Your task to perform on an android device: turn off smart reply in the gmail app Image 0: 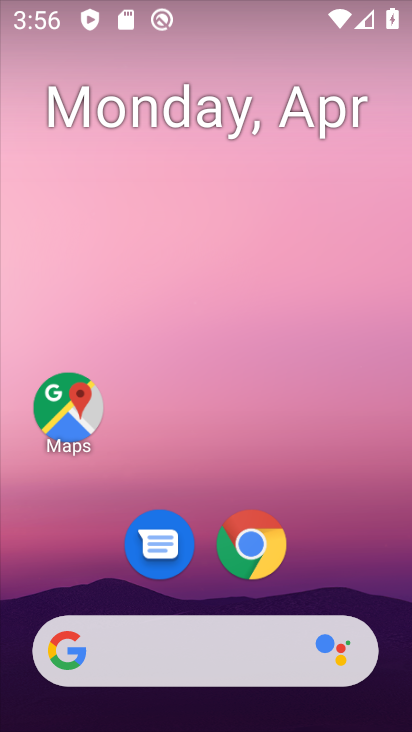
Step 0: drag from (73, 555) to (191, 46)
Your task to perform on an android device: turn off smart reply in the gmail app Image 1: 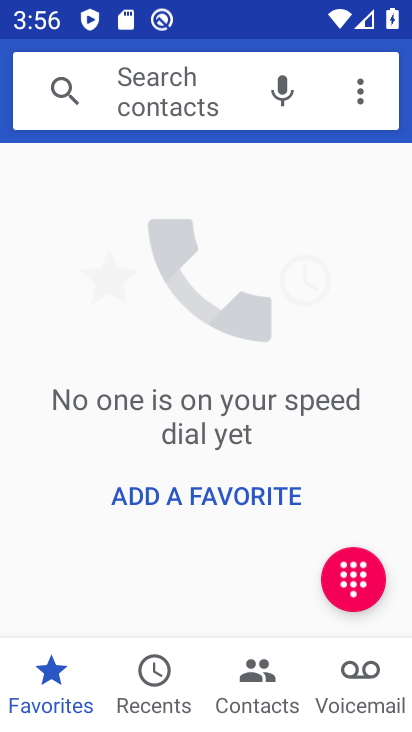
Step 1: press back button
Your task to perform on an android device: turn off smart reply in the gmail app Image 2: 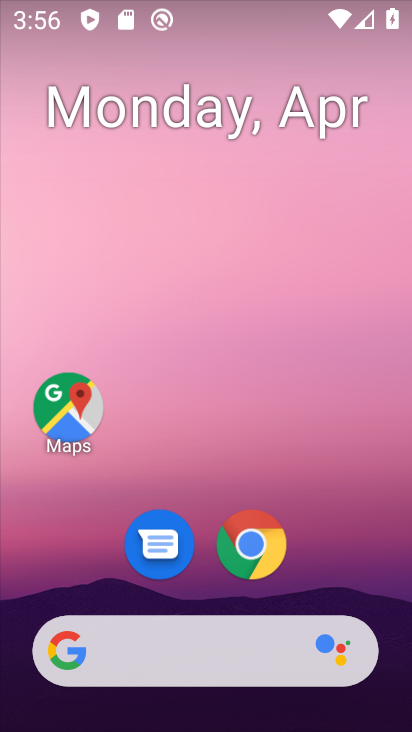
Step 2: drag from (192, 536) to (305, 22)
Your task to perform on an android device: turn off smart reply in the gmail app Image 3: 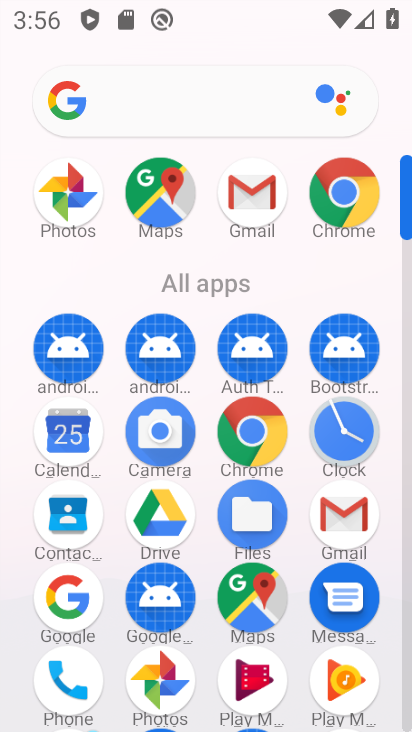
Step 3: click (347, 509)
Your task to perform on an android device: turn off smart reply in the gmail app Image 4: 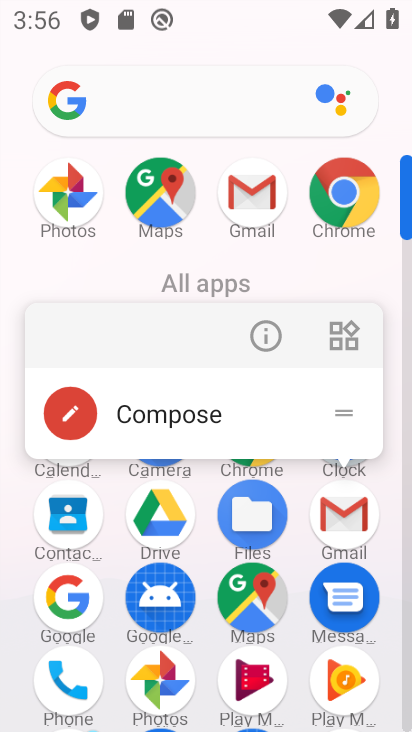
Step 4: click (348, 508)
Your task to perform on an android device: turn off smart reply in the gmail app Image 5: 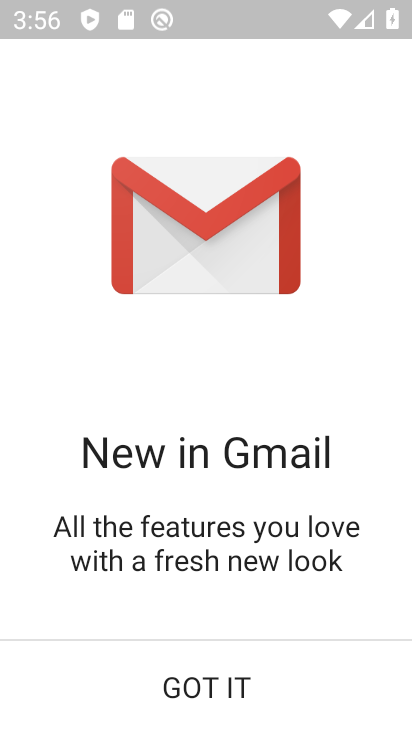
Step 5: click (244, 672)
Your task to perform on an android device: turn off smart reply in the gmail app Image 6: 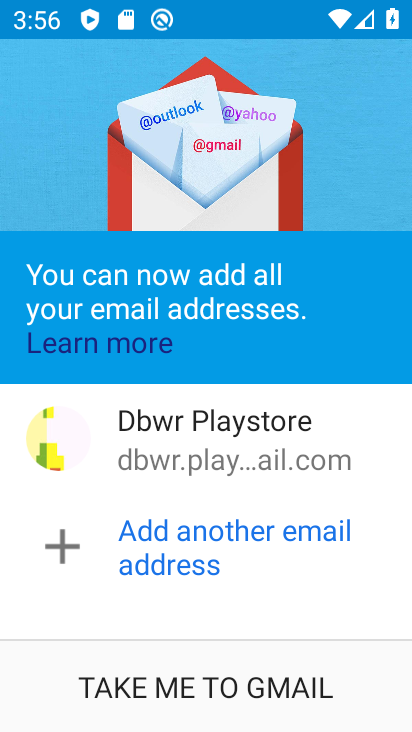
Step 6: click (253, 681)
Your task to perform on an android device: turn off smart reply in the gmail app Image 7: 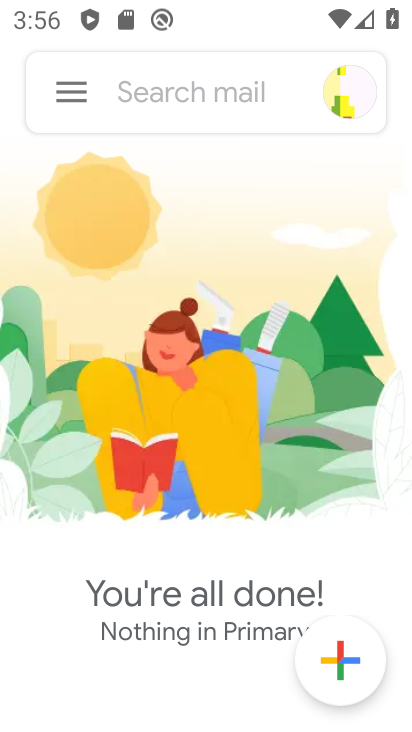
Step 7: click (66, 97)
Your task to perform on an android device: turn off smart reply in the gmail app Image 8: 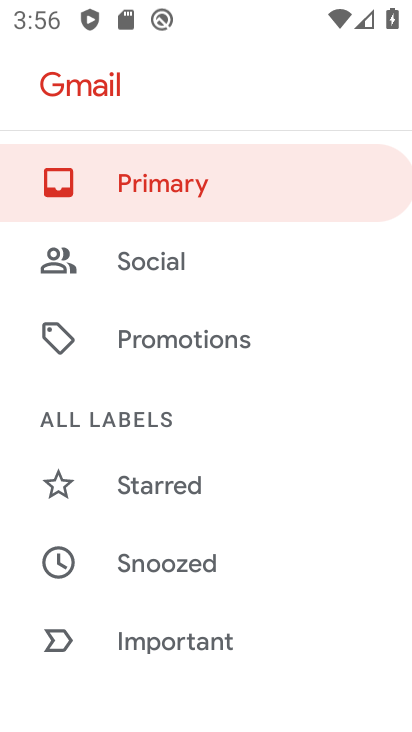
Step 8: drag from (221, 494) to (333, 162)
Your task to perform on an android device: turn off smart reply in the gmail app Image 9: 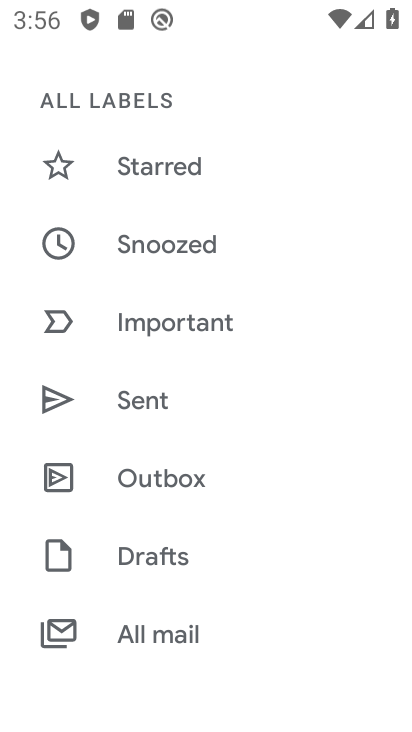
Step 9: drag from (229, 595) to (331, 120)
Your task to perform on an android device: turn off smart reply in the gmail app Image 10: 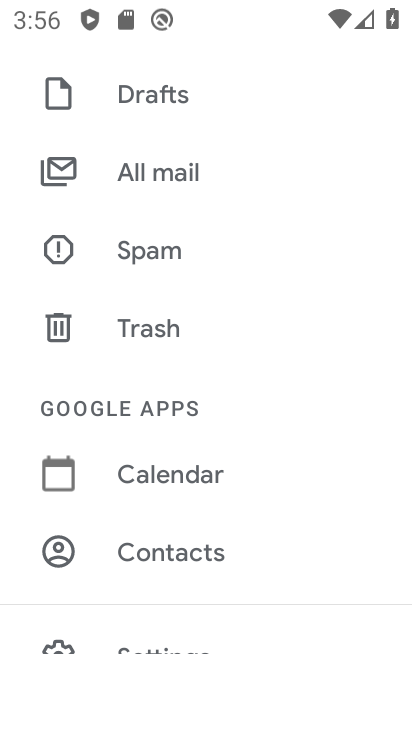
Step 10: drag from (276, 541) to (395, 118)
Your task to perform on an android device: turn off smart reply in the gmail app Image 11: 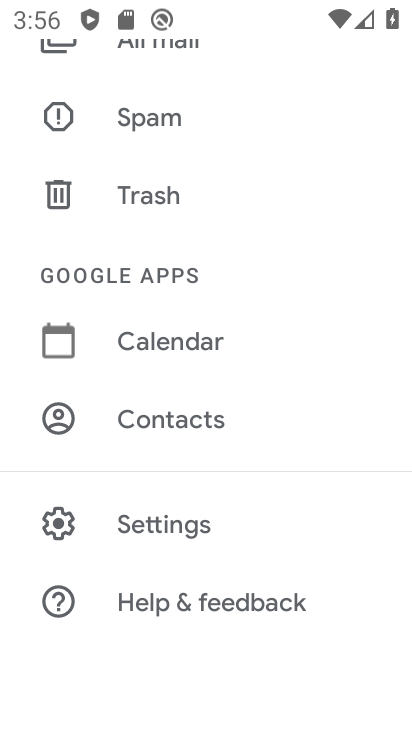
Step 11: click (230, 529)
Your task to perform on an android device: turn off smart reply in the gmail app Image 12: 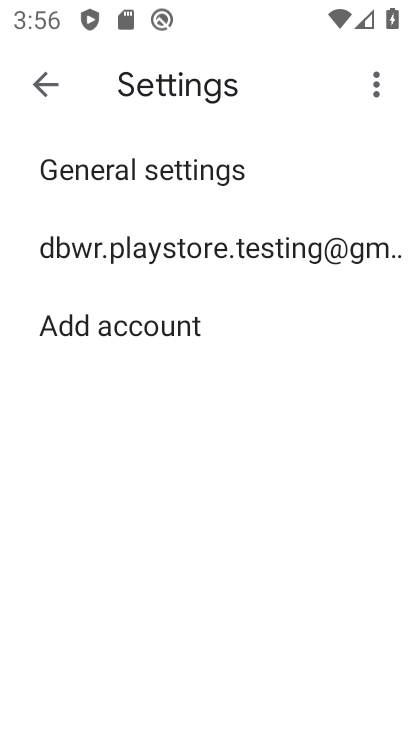
Step 12: click (225, 263)
Your task to perform on an android device: turn off smart reply in the gmail app Image 13: 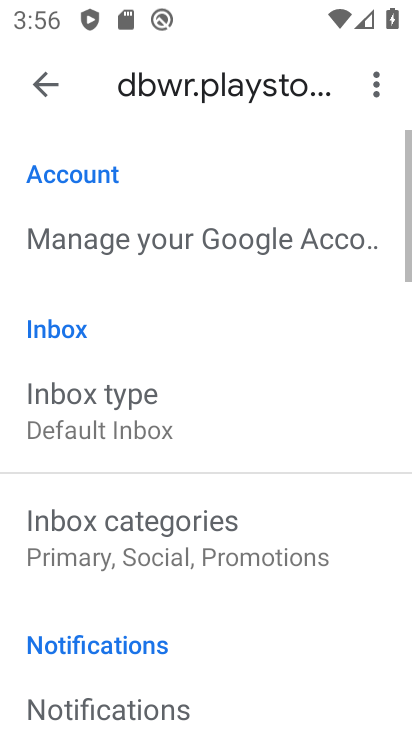
Step 13: drag from (179, 614) to (357, 106)
Your task to perform on an android device: turn off smart reply in the gmail app Image 14: 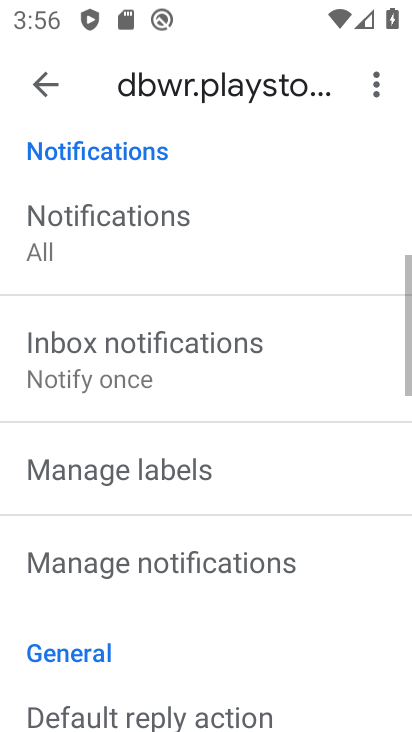
Step 14: drag from (209, 553) to (360, 137)
Your task to perform on an android device: turn off smart reply in the gmail app Image 15: 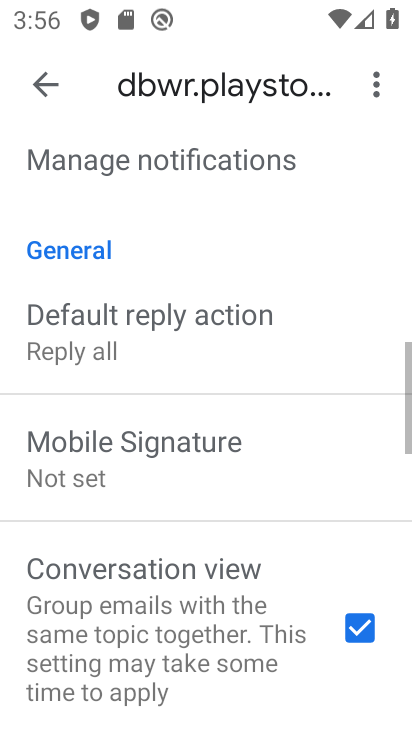
Step 15: drag from (219, 563) to (336, 121)
Your task to perform on an android device: turn off smart reply in the gmail app Image 16: 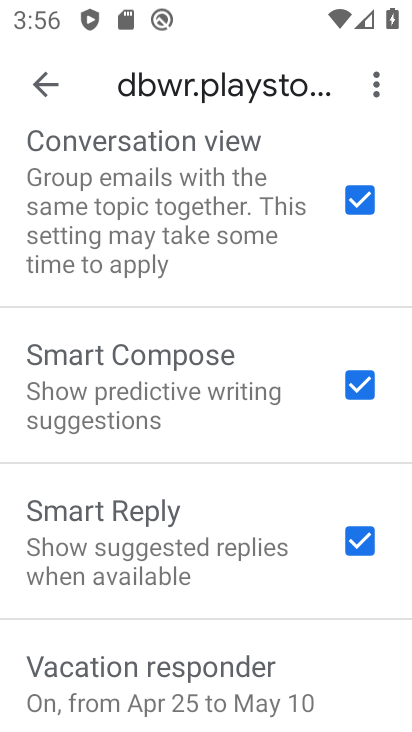
Step 16: click (365, 528)
Your task to perform on an android device: turn off smart reply in the gmail app Image 17: 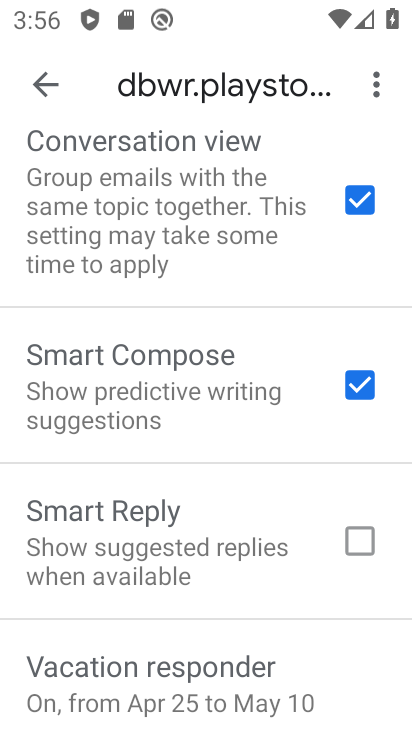
Step 17: task complete